Your task to perform on an android device: open a new tab in the chrome app Image 0: 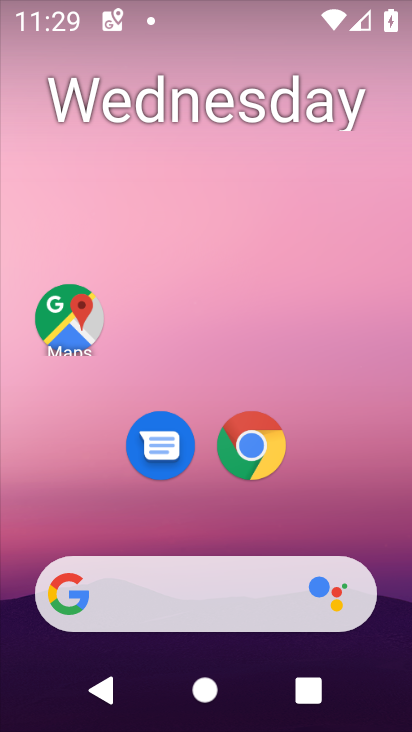
Step 0: click (265, 461)
Your task to perform on an android device: open a new tab in the chrome app Image 1: 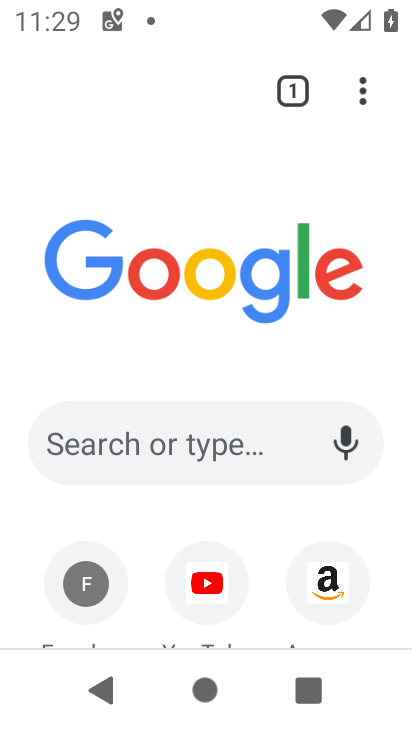
Step 1: task complete